Your task to perform on an android device: find which apps use the phone's location Image 0: 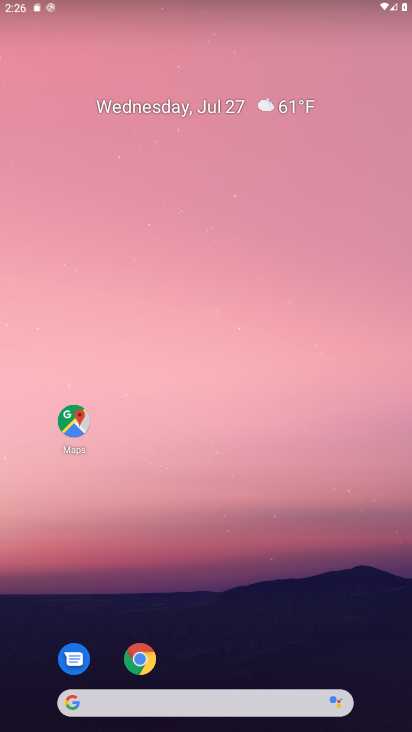
Step 0: task complete